Your task to perform on an android device: turn on data saver in the chrome app Image 0: 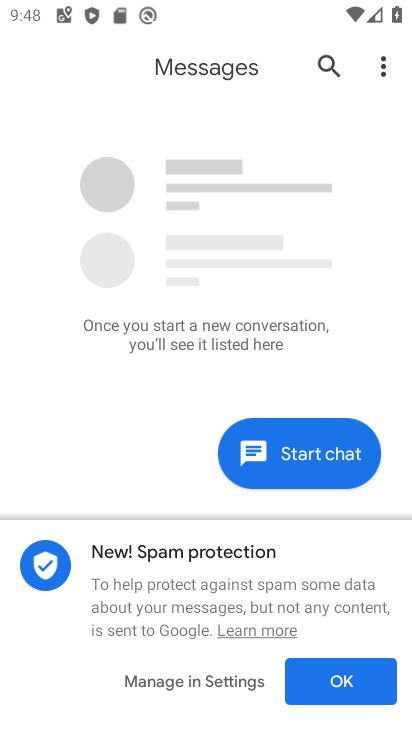
Step 0: press home button
Your task to perform on an android device: turn on data saver in the chrome app Image 1: 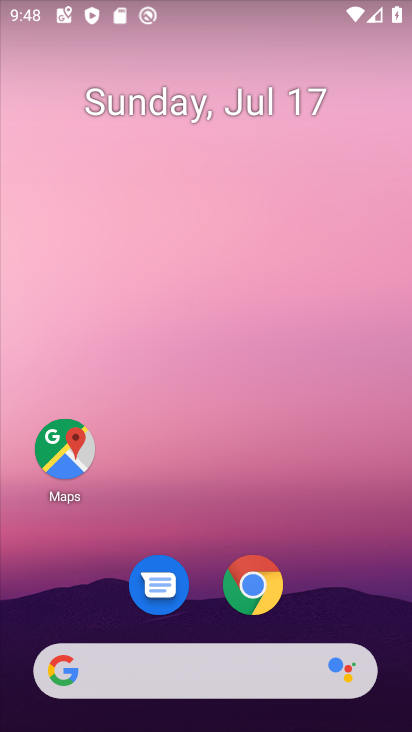
Step 1: click (265, 582)
Your task to perform on an android device: turn on data saver in the chrome app Image 2: 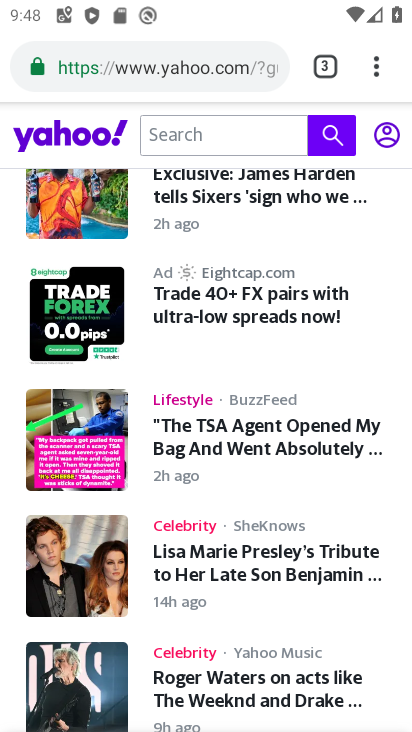
Step 2: click (374, 61)
Your task to perform on an android device: turn on data saver in the chrome app Image 3: 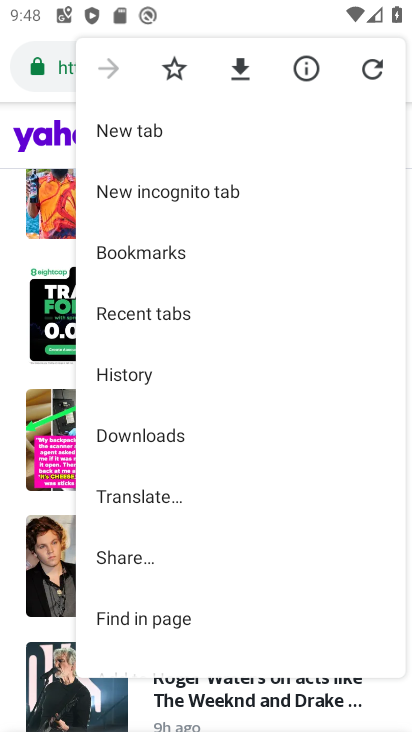
Step 3: drag from (230, 538) to (240, 157)
Your task to perform on an android device: turn on data saver in the chrome app Image 4: 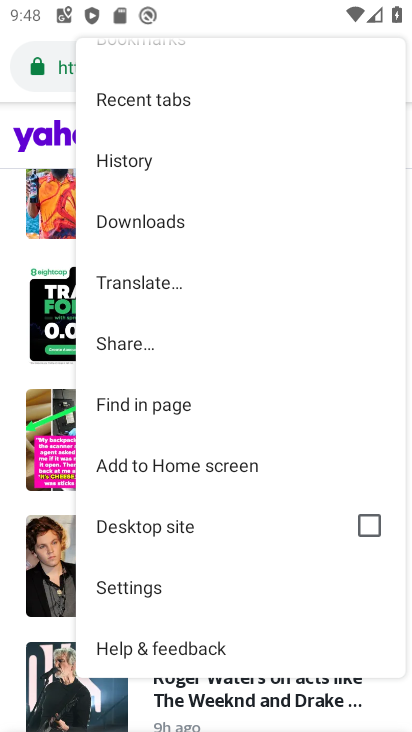
Step 4: click (144, 590)
Your task to perform on an android device: turn on data saver in the chrome app Image 5: 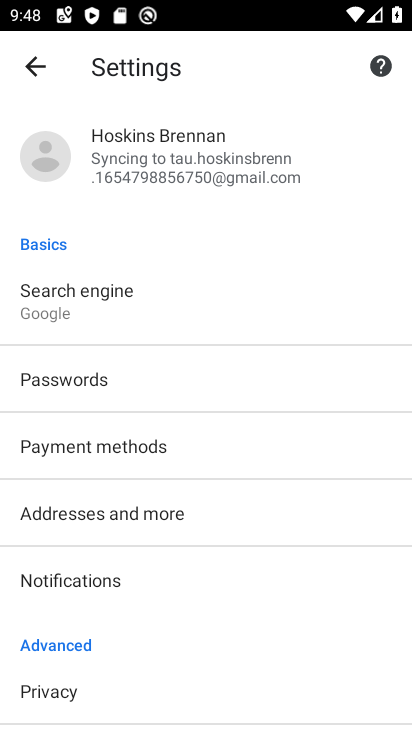
Step 5: drag from (223, 526) to (265, 238)
Your task to perform on an android device: turn on data saver in the chrome app Image 6: 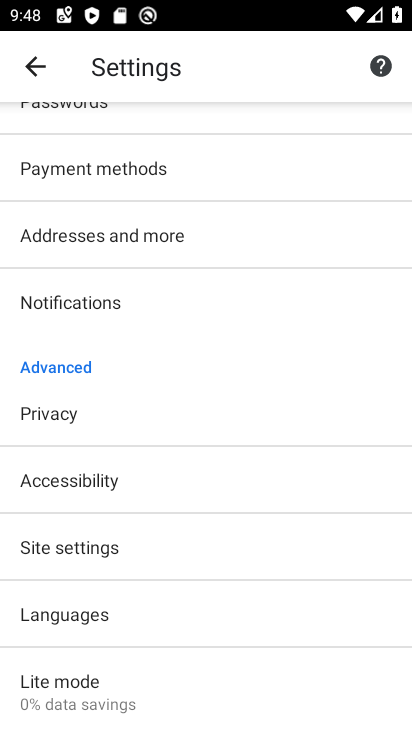
Step 6: click (119, 705)
Your task to perform on an android device: turn on data saver in the chrome app Image 7: 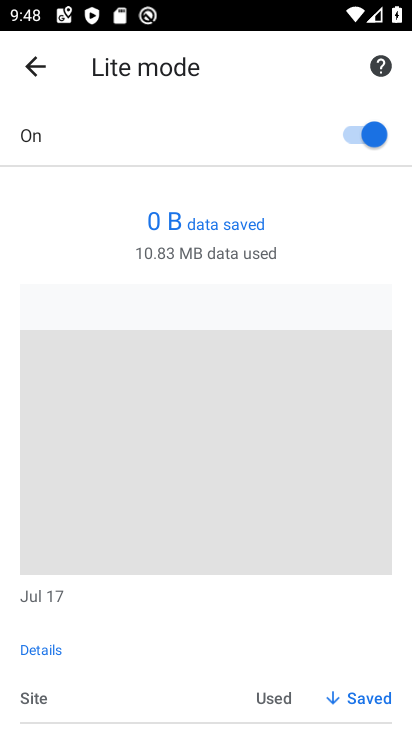
Step 7: task complete